Your task to perform on an android device: Show me popular videos on Youtube Image 0: 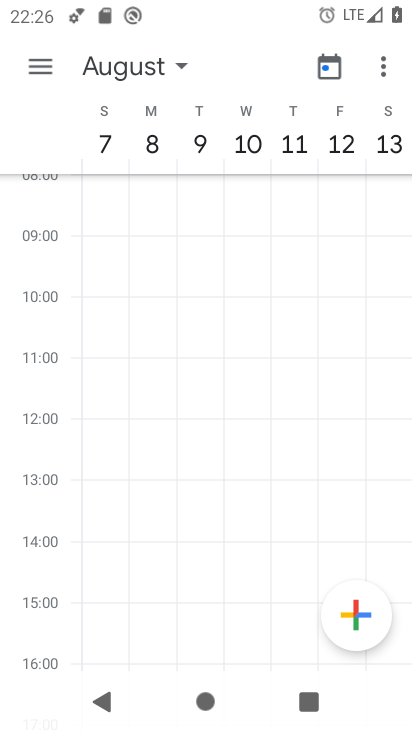
Step 0: press home button
Your task to perform on an android device: Show me popular videos on Youtube Image 1: 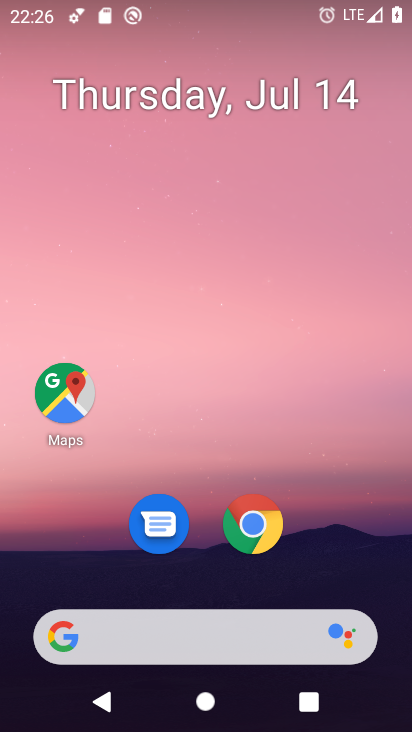
Step 1: drag from (209, 455) to (194, 9)
Your task to perform on an android device: Show me popular videos on Youtube Image 2: 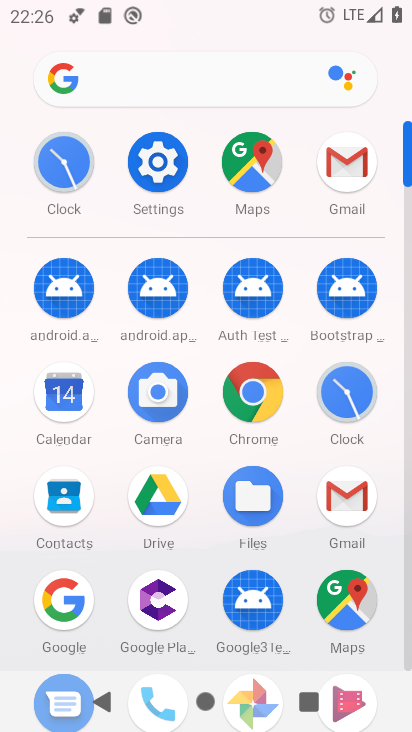
Step 2: drag from (208, 446) to (213, 63)
Your task to perform on an android device: Show me popular videos on Youtube Image 3: 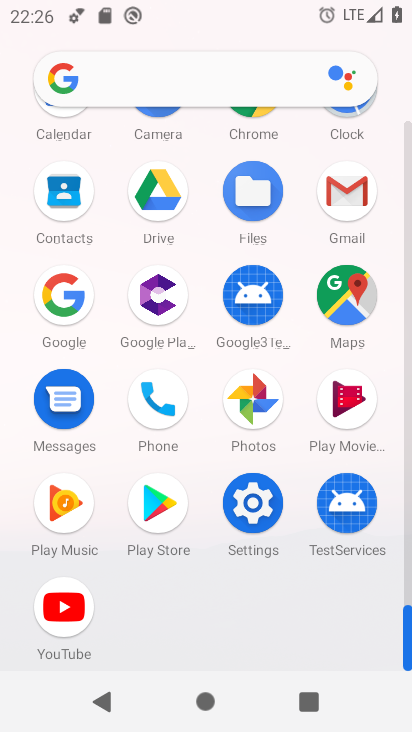
Step 3: click (72, 593)
Your task to perform on an android device: Show me popular videos on Youtube Image 4: 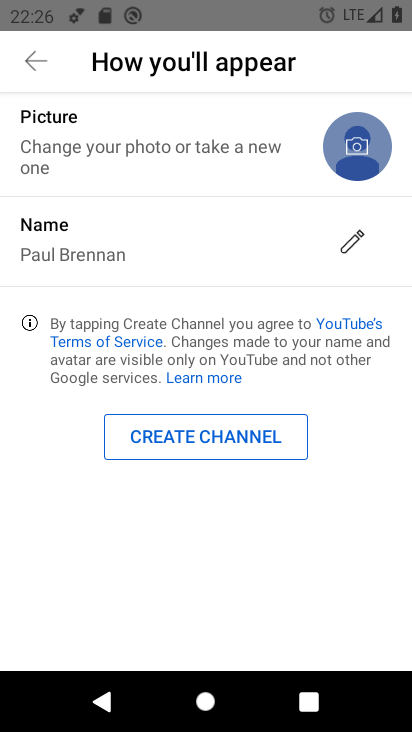
Step 4: click (35, 52)
Your task to perform on an android device: Show me popular videos on Youtube Image 5: 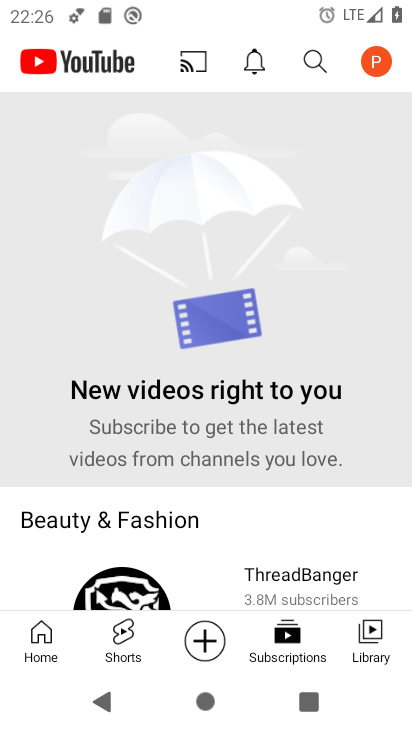
Step 5: click (304, 61)
Your task to perform on an android device: Show me popular videos on Youtube Image 6: 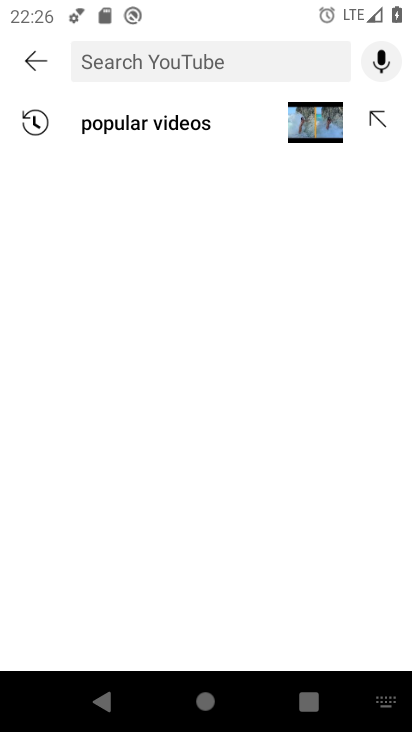
Step 6: click (176, 122)
Your task to perform on an android device: Show me popular videos on Youtube Image 7: 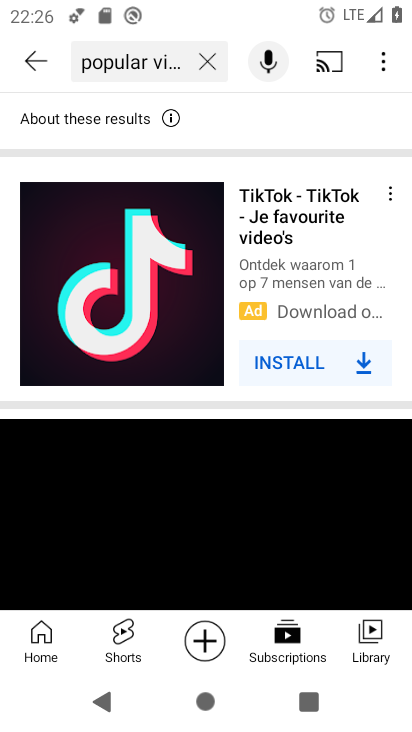
Step 7: task complete